Your task to perform on an android device: Go to accessibility settings Image 0: 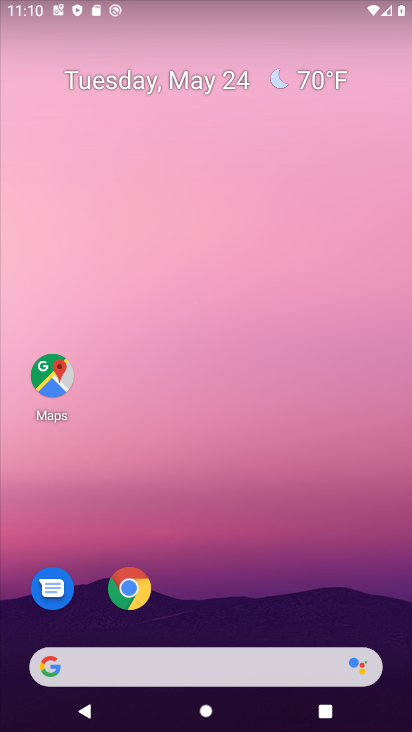
Step 0: drag from (215, 627) to (170, 16)
Your task to perform on an android device: Go to accessibility settings Image 1: 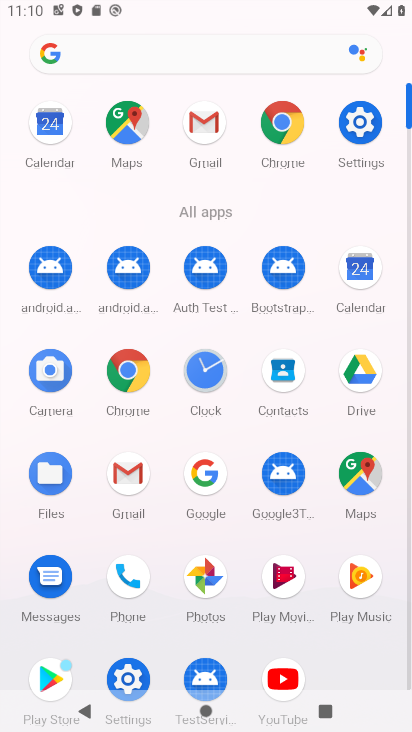
Step 1: click (358, 115)
Your task to perform on an android device: Go to accessibility settings Image 2: 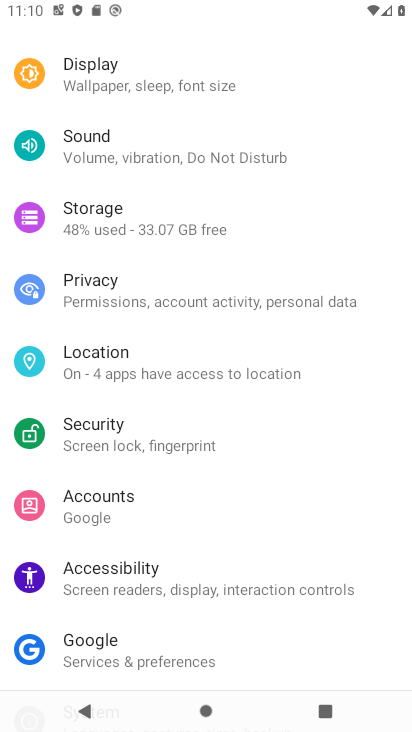
Step 2: click (162, 571)
Your task to perform on an android device: Go to accessibility settings Image 3: 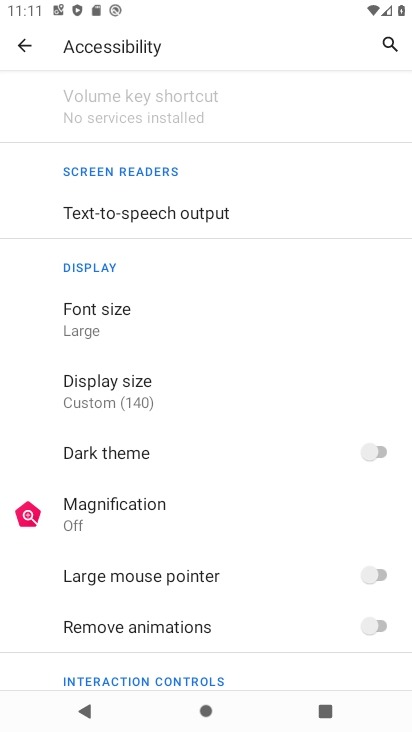
Step 3: task complete